Your task to perform on an android device: Turn off the flashlight Image 0: 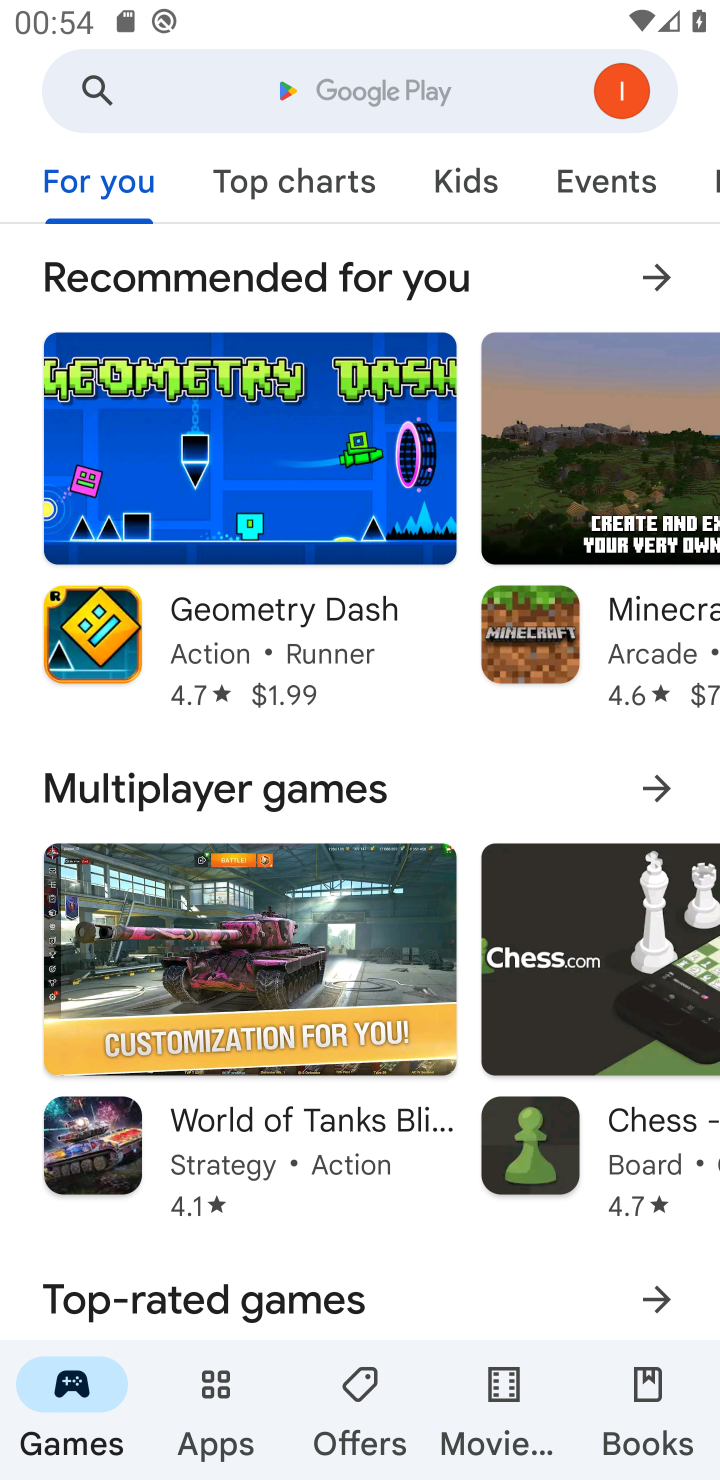
Step 0: press home button
Your task to perform on an android device: Turn off the flashlight Image 1: 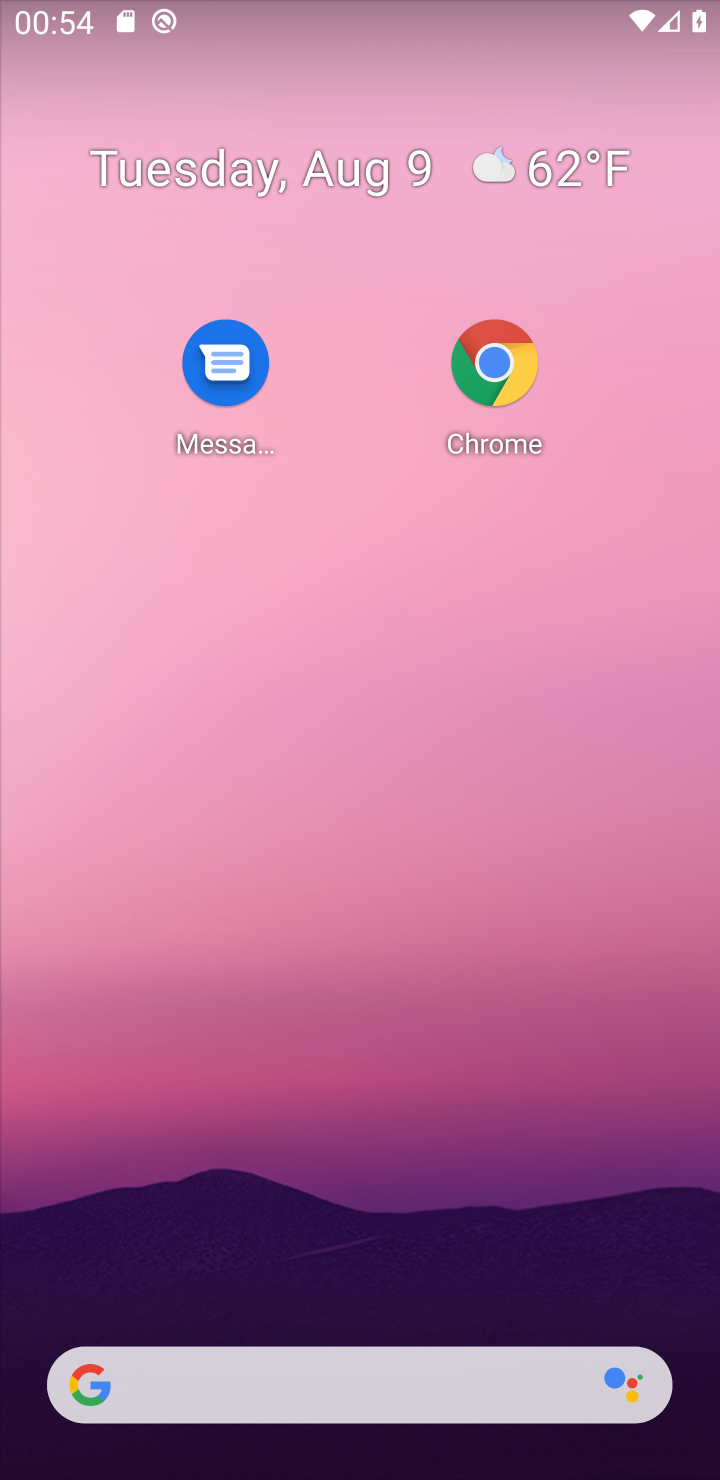
Step 1: drag from (244, 1296) to (420, 361)
Your task to perform on an android device: Turn off the flashlight Image 2: 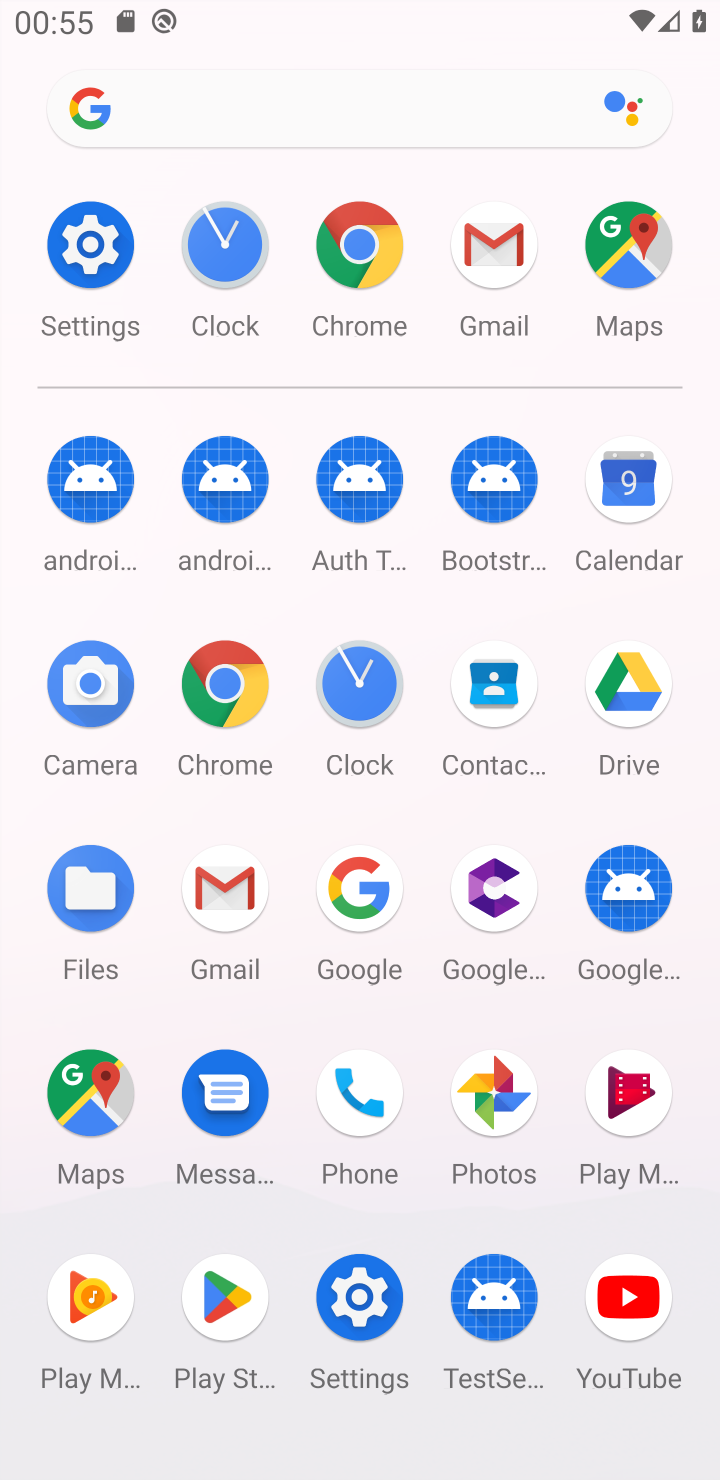
Step 2: click (97, 223)
Your task to perform on an android device: Turn off the flashlight Image 3: 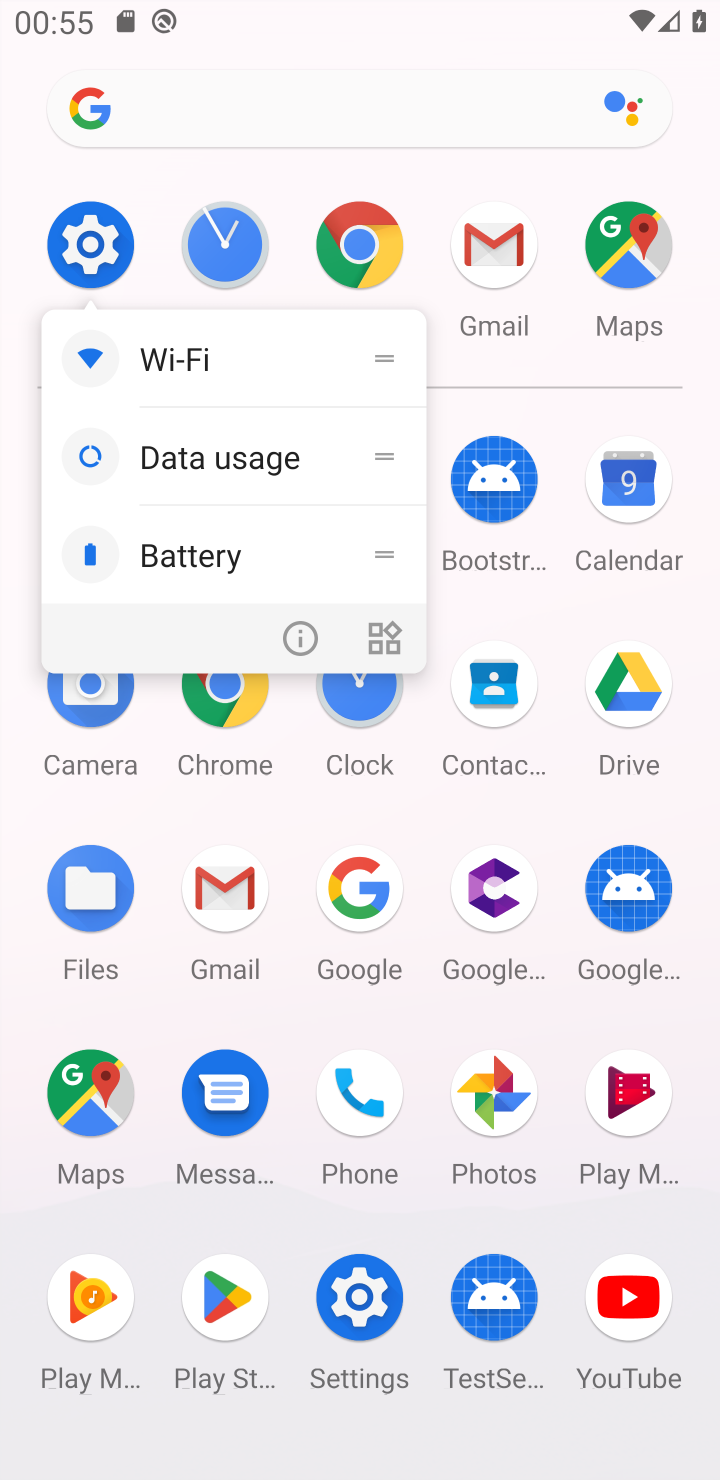
Step 3: click (97, 223)
Your task to perform on an android device: Turn off the flashlight Image 4: 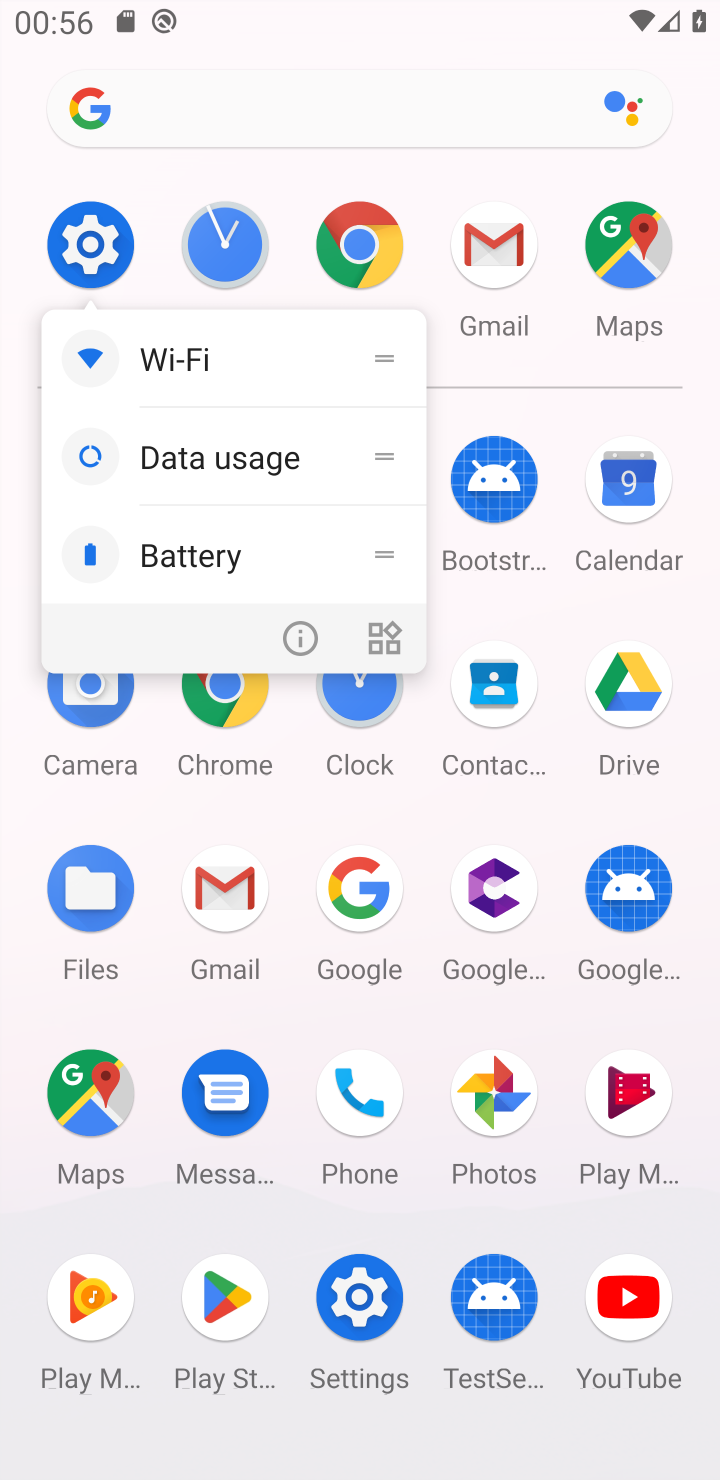
Step 4: click (69, 241)
Your task to perform on an android device: Turn off the flashlight Image 5: 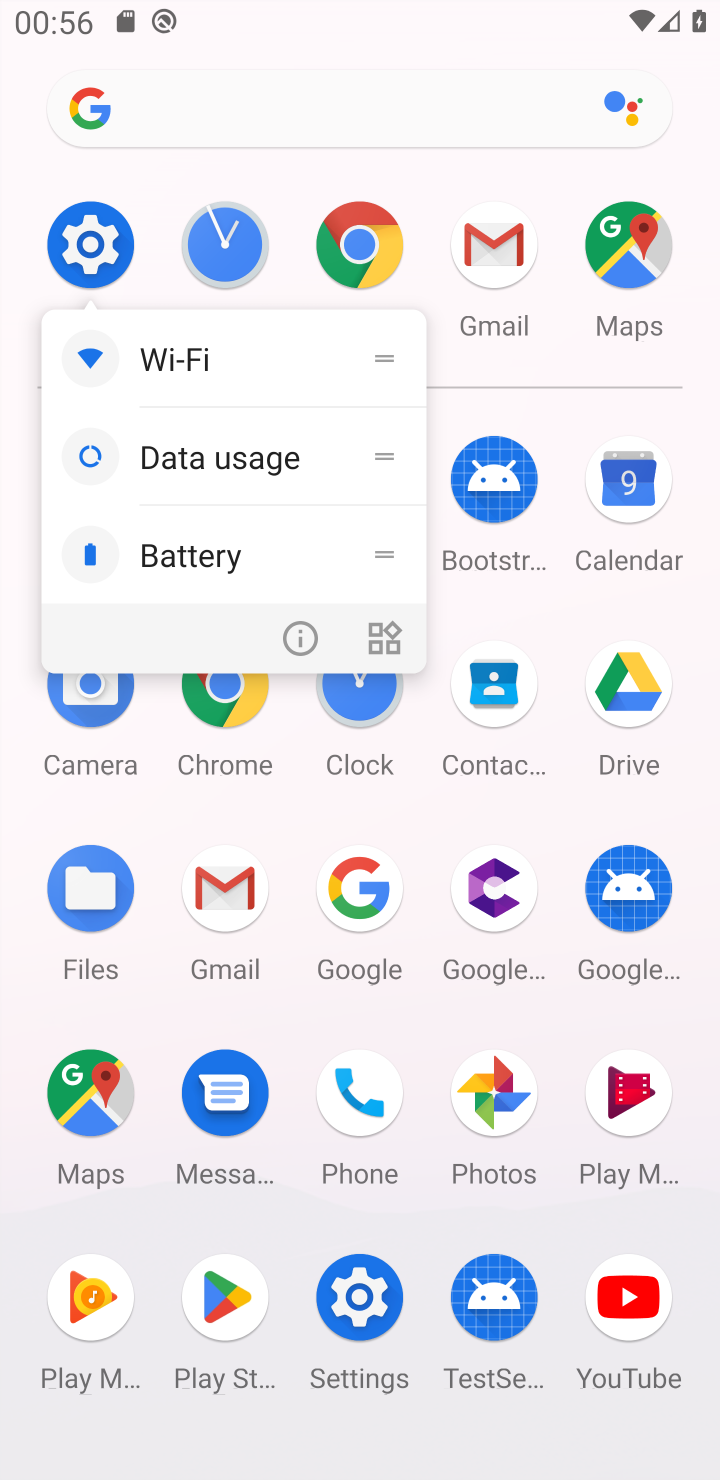
Step 5: click (98, 253)
Your task to perform on an android device: Turn off the flashlight Image 6: 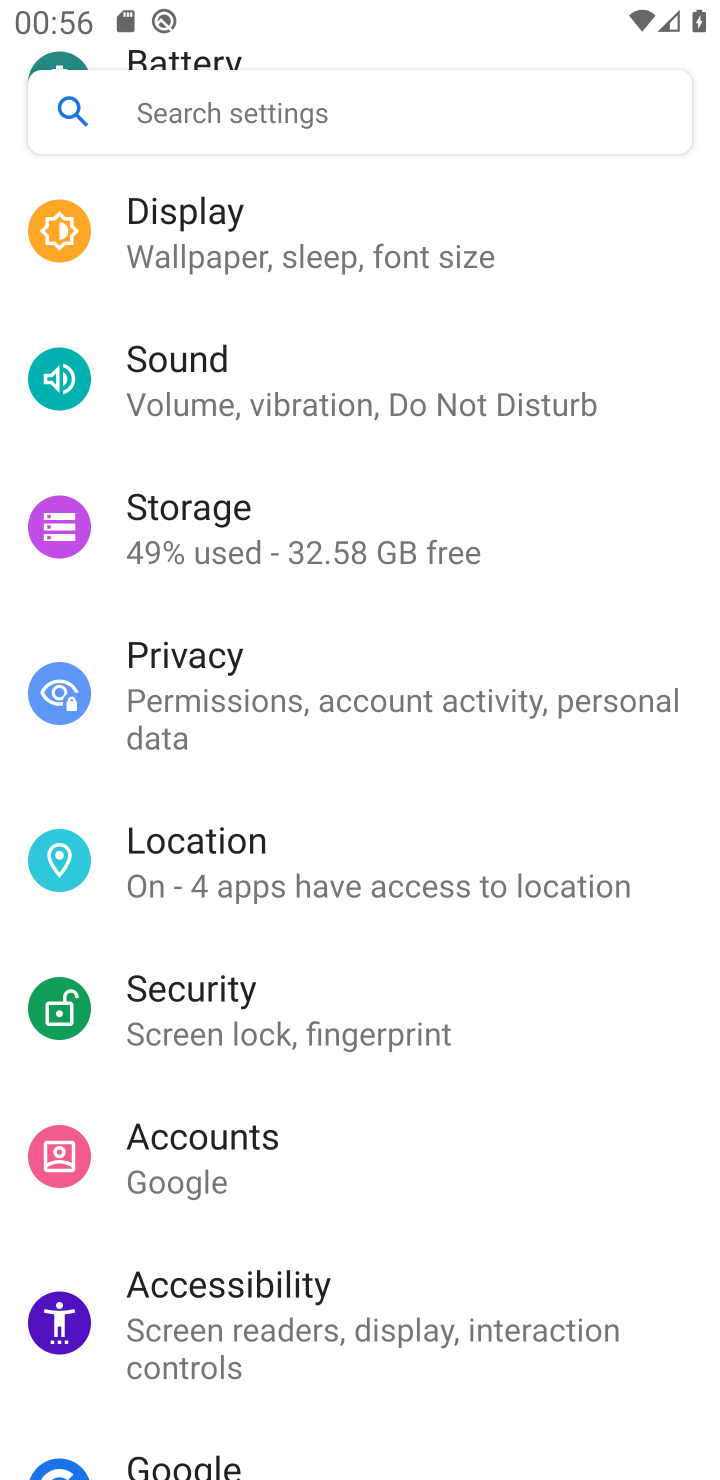
Step 6: task complete